Your task to perform on an android device: open app "YouTube Kids" (install if not already installed) Image 0: 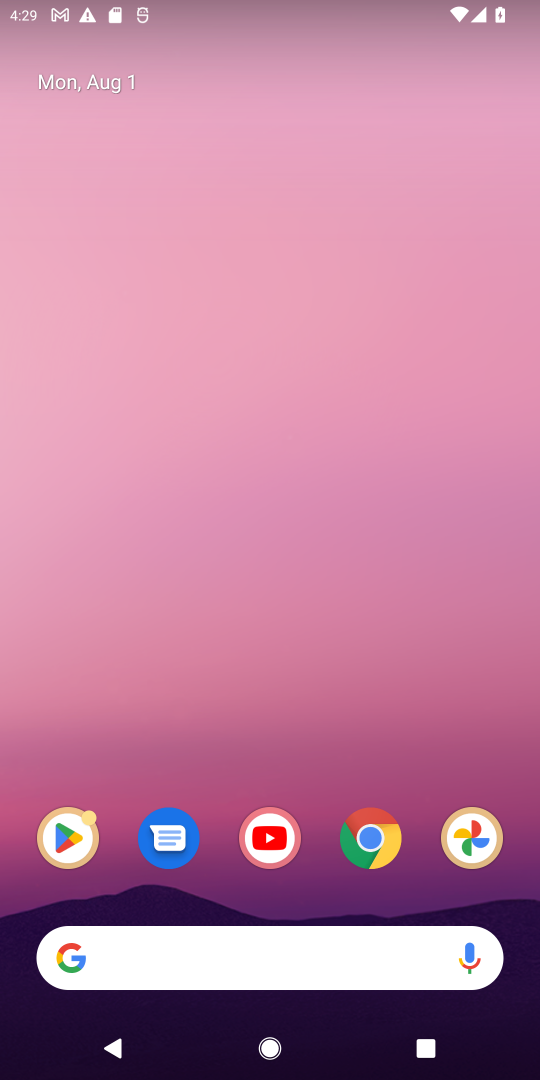
Step 0: click (69, 828)
Your task to perform on an android device: open app "YouTube Kids" (install if not already installed) Image 1: 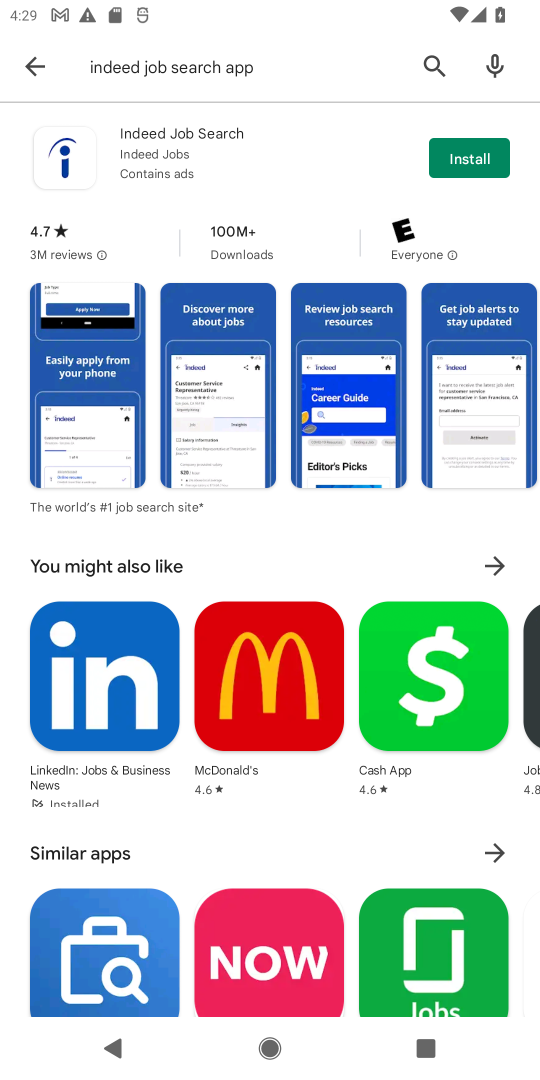
Step 1: click (432, 67)
Your task to perform on an android device: open app "YouTube Kids" (install if not already installed) Image 2: 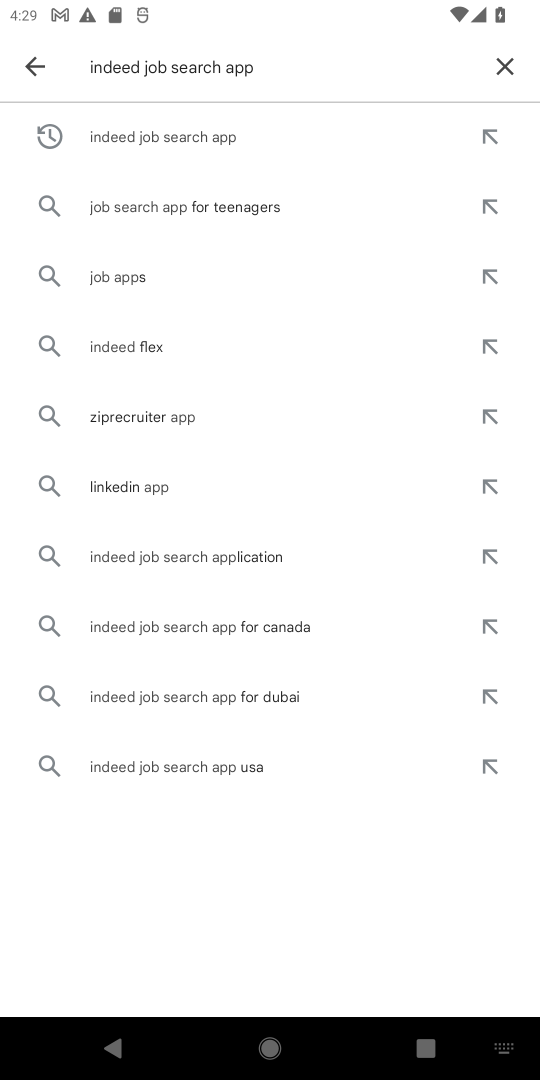
Step 2: click (507, 62)
Your task to perform on an android device: open app "YouTube Kids" (install if not already installed) Image 3: 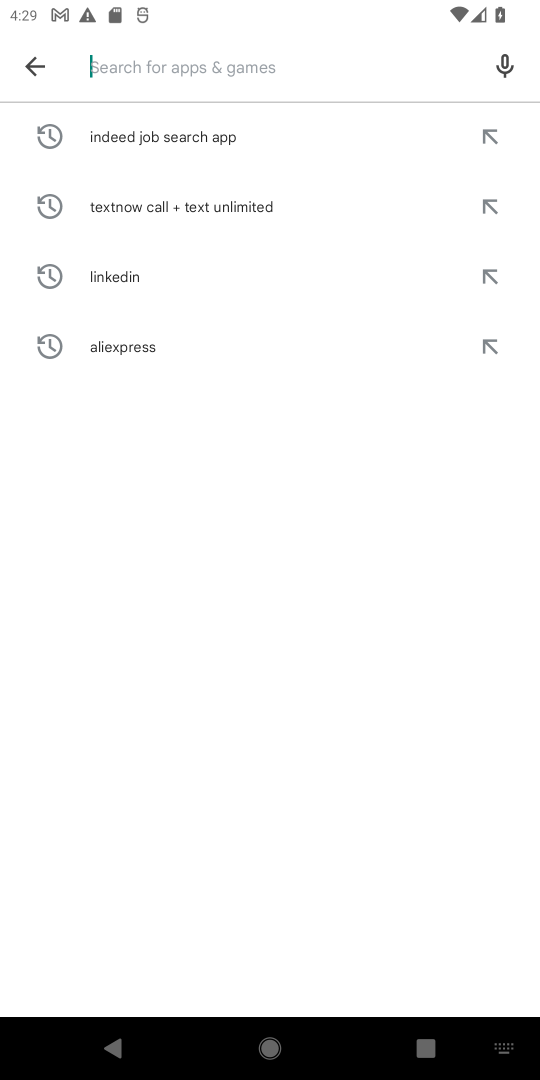
Step 3: type "yt kids"
Your task to perform on an android device: open app "YouTube Kids" (install if not already installed) Image 4: 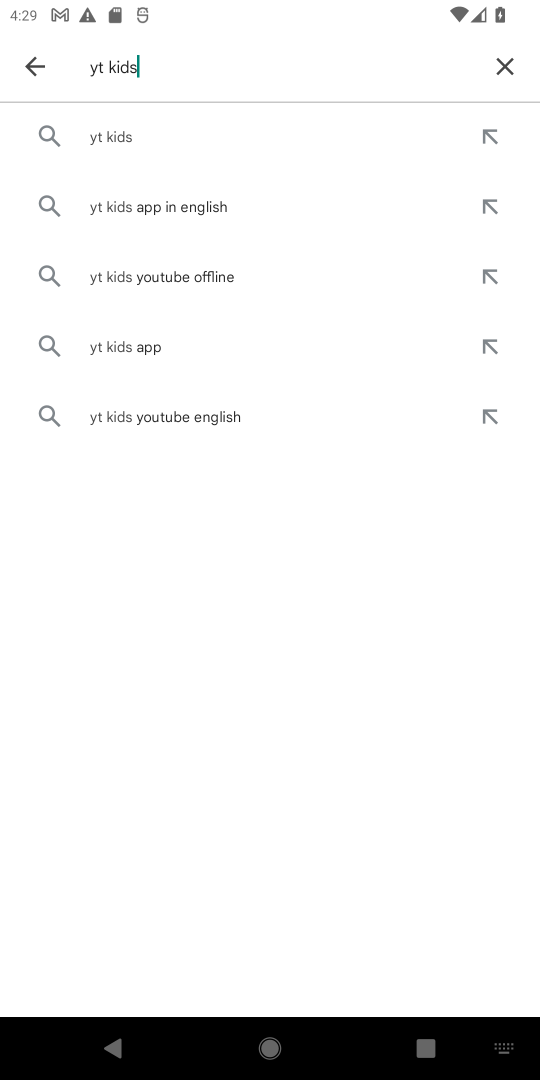
Step 4: click (124, 133)
Your task to perform on an android device: open app "YouTube Kids" (install if not already installed) Image 5: 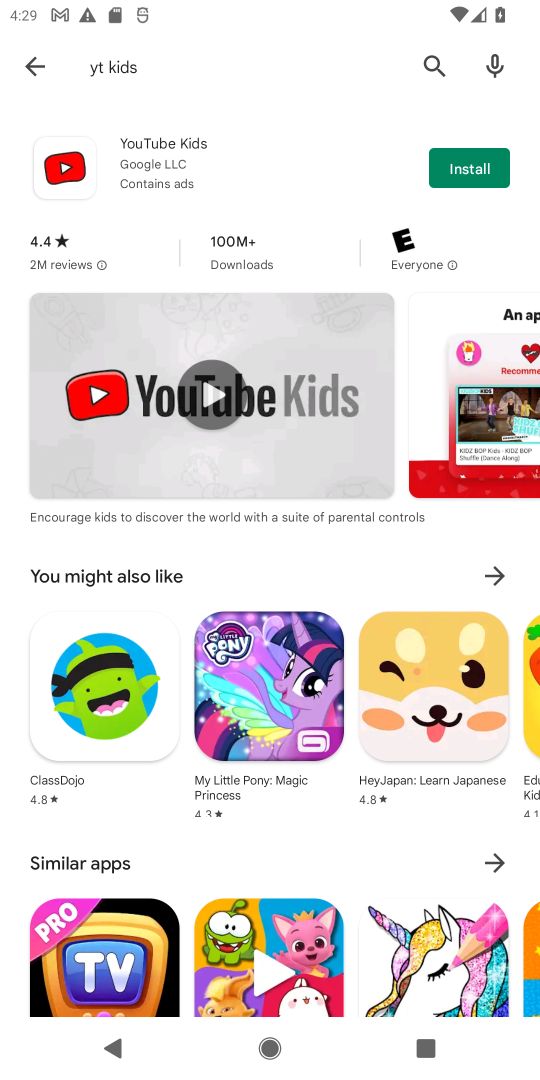
Step 5: click (472, 181)
Your task to perform on an android device: open app "YouTube Kids" (install if not already installed) Image 6: 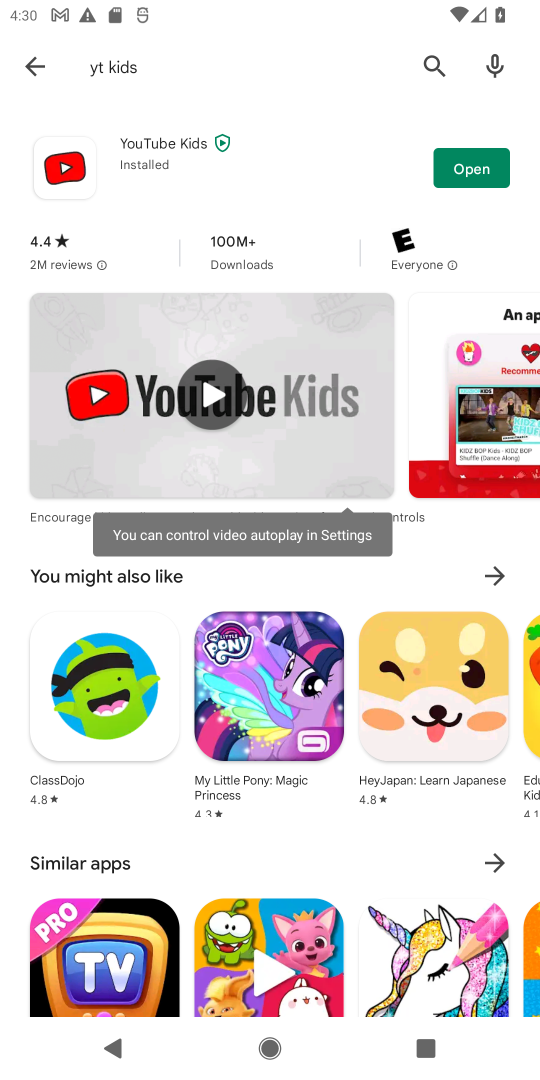
Step 6: click (461, 173)
Your task to perform on an android device: open app "YouTube Kids" (install if not already installed) Image 7: 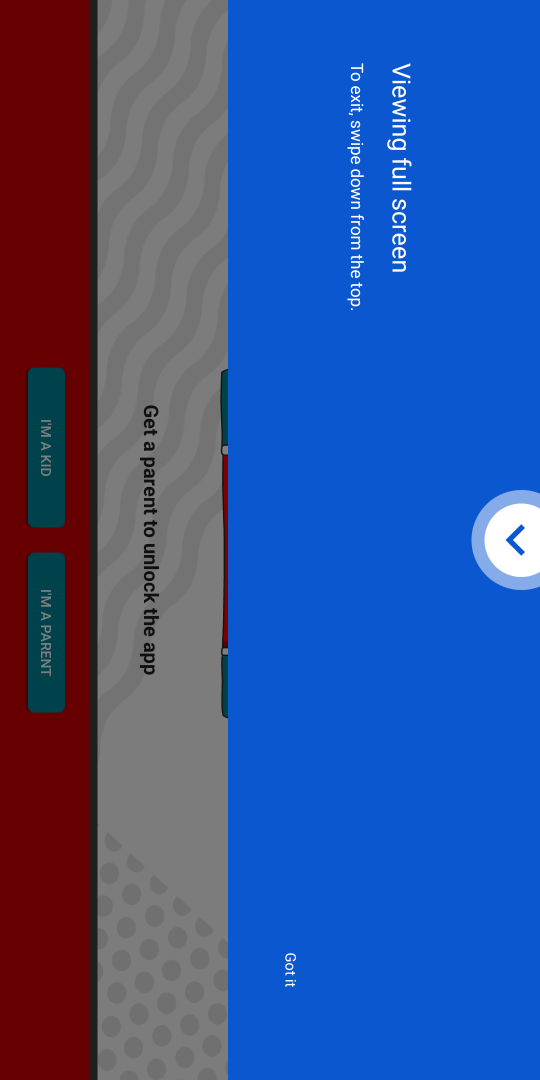
Step 7: click (295, 992)
Your task to perform on an android device: open app "YouTube Kids" (install if not already installed) Image 8: 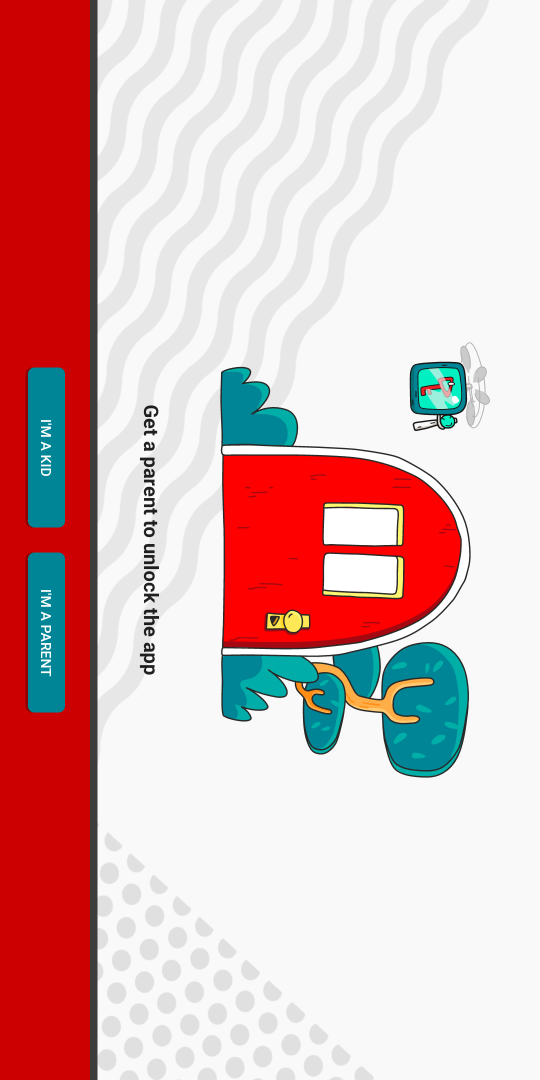
Step 8: task complete